Your task to perform on an android device: turn on location history Image 0: 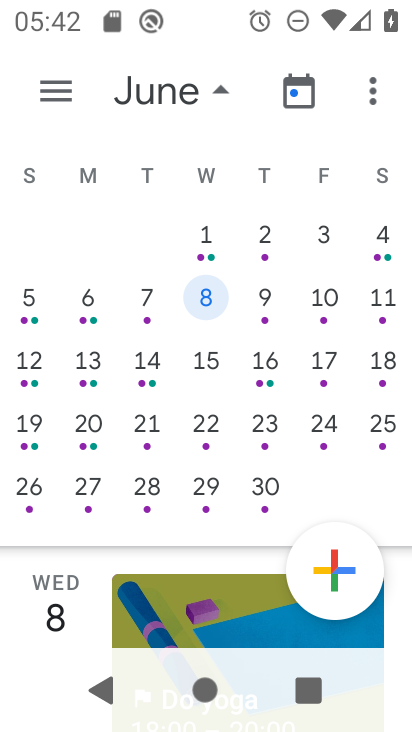
Step 0: press home button
Your task to perform on an android device: turn on location history Image 1: 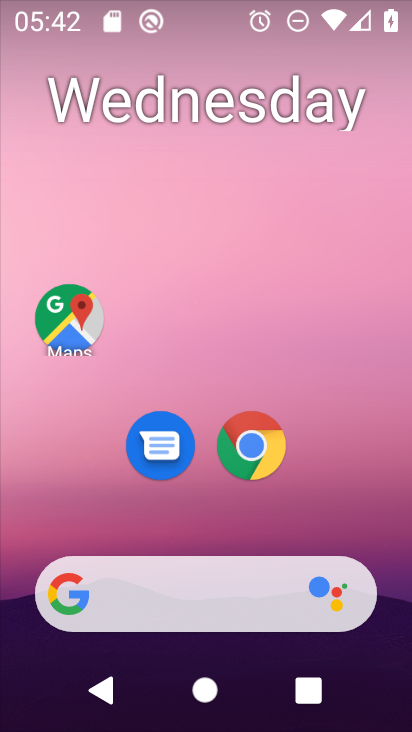
Step 1: drag from (185, 519) to (239, 25)
Your task to perform on an android device: turn on location history Image 2: 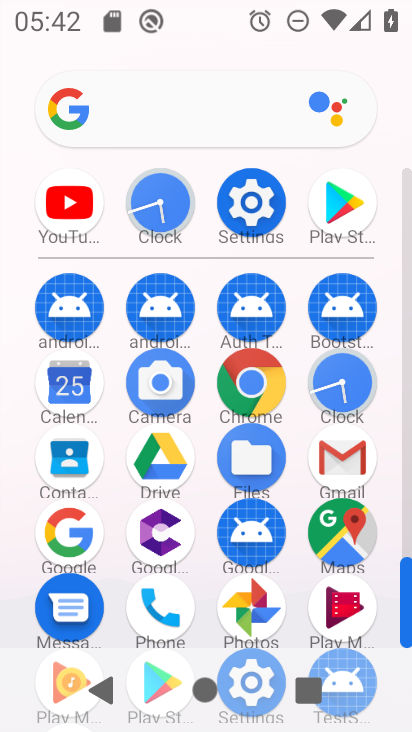
Step 2: click (247, 198)
Your task to perform on an android device: turn on location history Image 3: 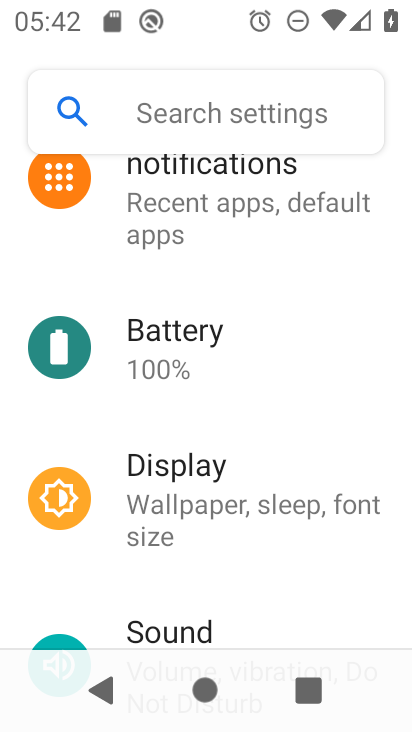
Step 3: drag from (135, 631) to (279, 182)
Your task to perform on an android device: turn on location history Image 4: 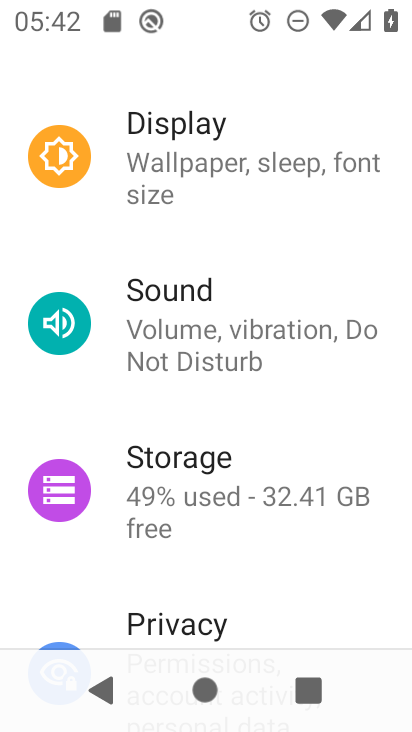
Step 4: drag from (152, 580) to (205, 162)
Your task to perform on an android device: turn on location history Image 5: 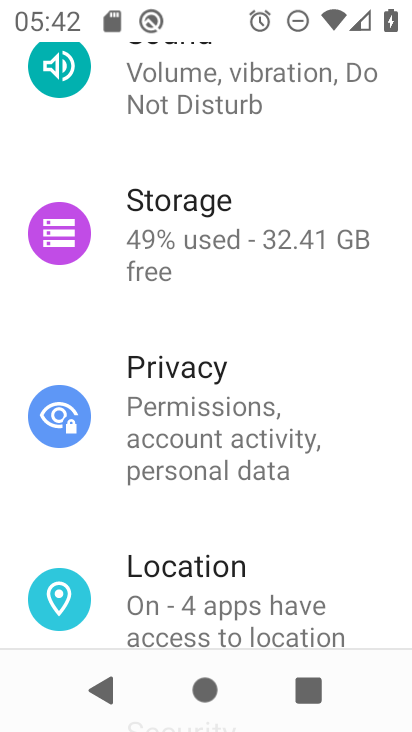
Step 5: click (100, 562)
Your task to perform on an android device: turn on location history Image 6: 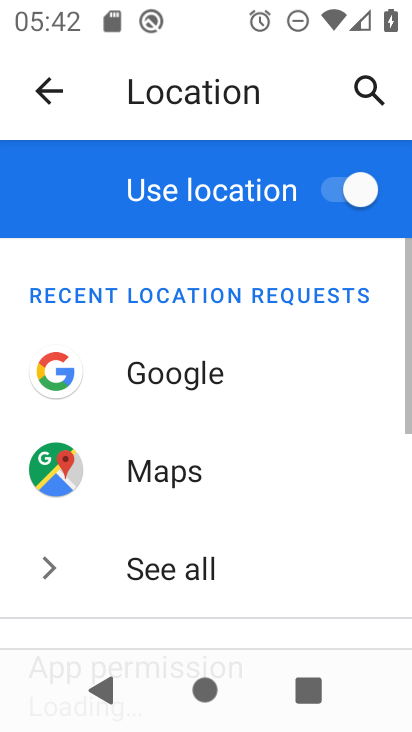
Step 6: drag from (100, 562) to (221, 193)
Your task to perform on an android device: turn on location history Image 7: 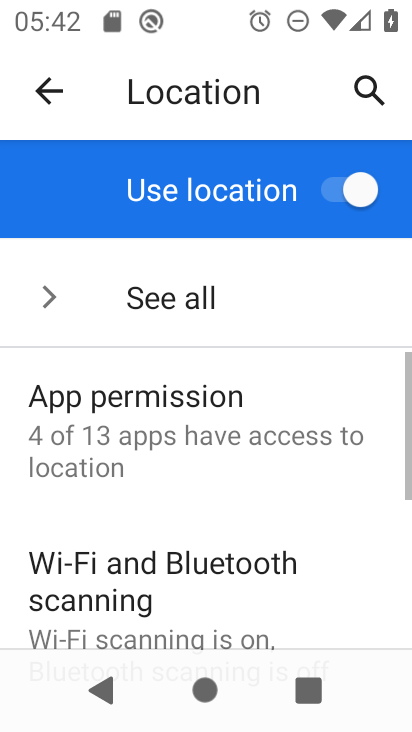
Step 7: drag from (101, 561) to (159, 324)
Your task to perform on an android device: turn on location history Image 8: 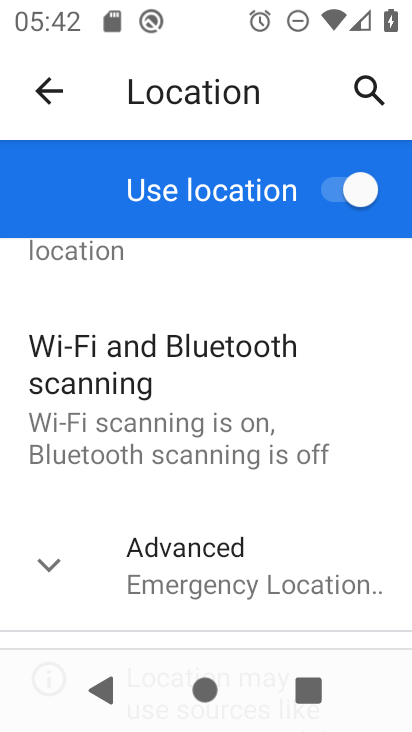
Step 8: click (231, 578)
Your task to perform on an android device: turn on location history Image 9: 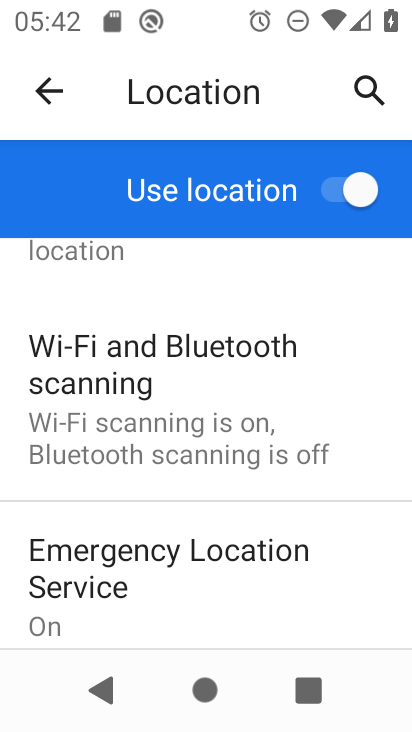
Step 9: drag from (285, 426) to (328, 118)
Your task to perform on an android device: turn on location history Image 10: 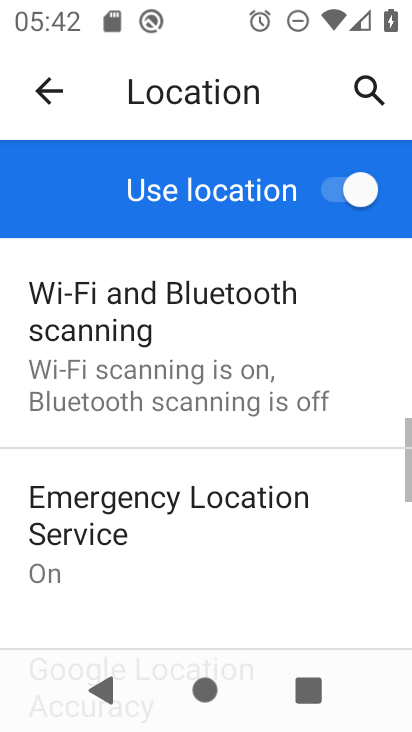
Step 10: drag from (110, 585) to (149, 299)
Your task to perform on an android device: turn on location history Image 11: 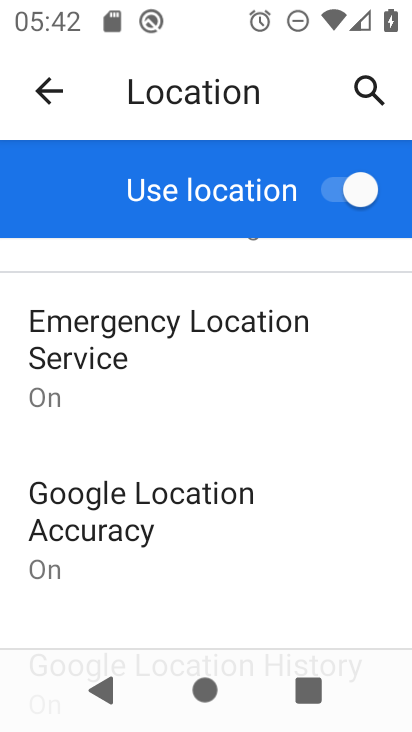
Step 11: drag from (158, 609) to (211, 169)
Your task to perform on an android device: turn on location history Image 12: 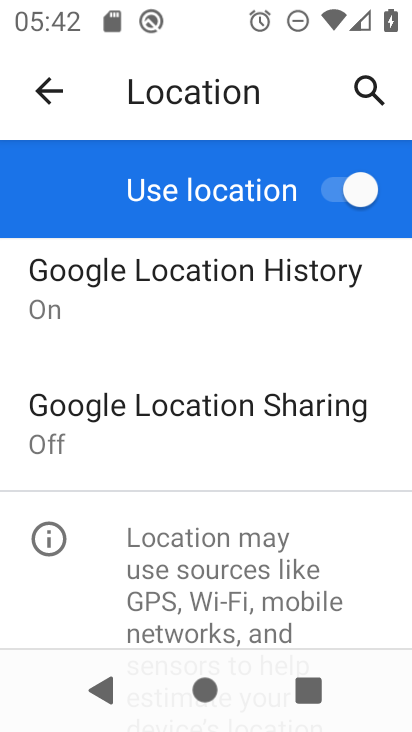
Step 12: click (187, 298)
Your task to perform on an android device: turn on location history Image 13: 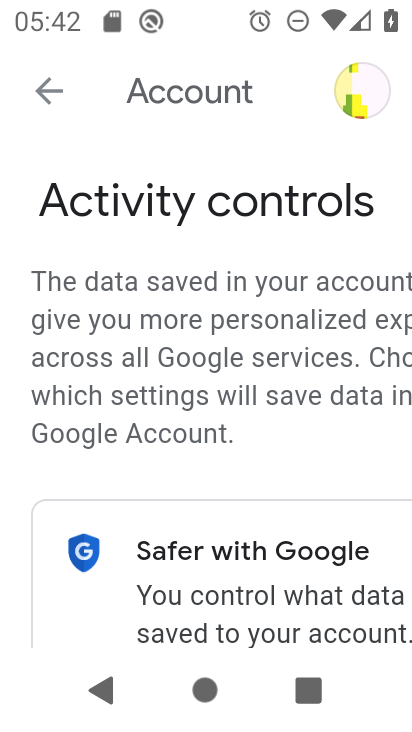
Step 13: task complete